Your task to perform on an android device: clear all cookies in the chrome app Image 0: 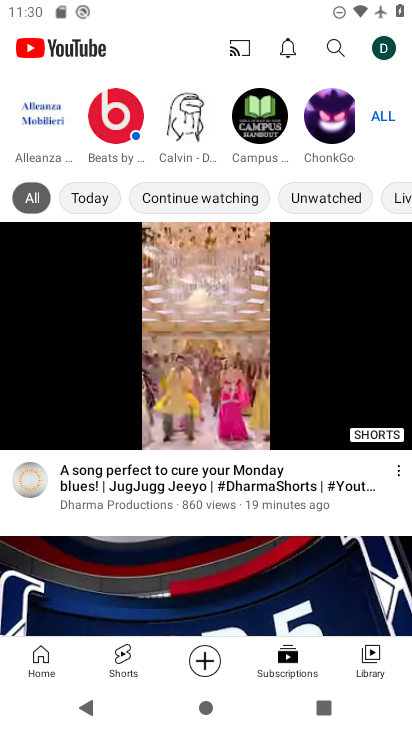
Step 0: press home button
Your task to perform on an android device: clear all cookies in the chrome app Image 1: 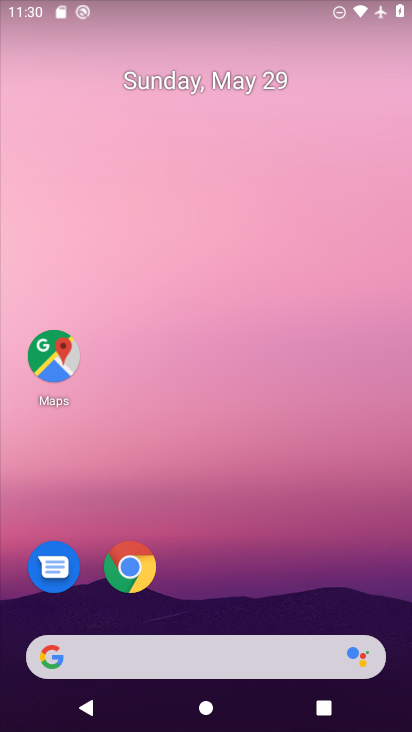
Step 1: click (129, 570)
Your task to perform on an android device: clear all cookies in the chrome app Image 2: 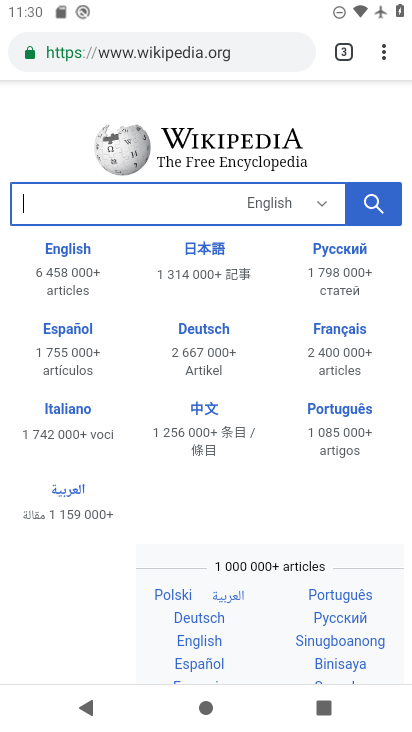
Step 2: click (379, 62)
Your task to perform on an android device: clear all cookies in the chrome app Image 3: 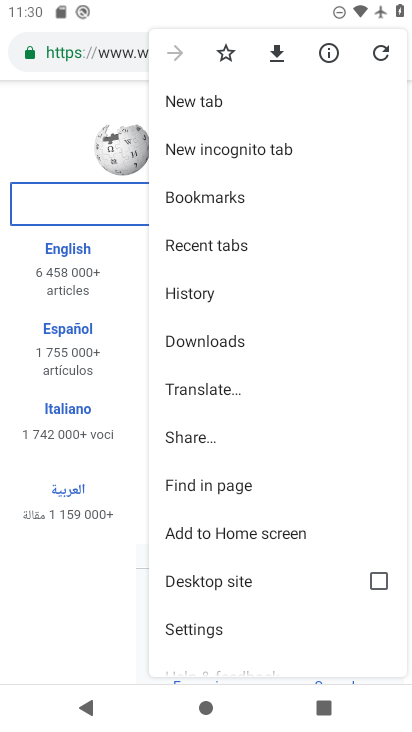
Step 3: click (201, 301)
Your task to perform on an android device: clear all cookies in the chrome app Image 4: 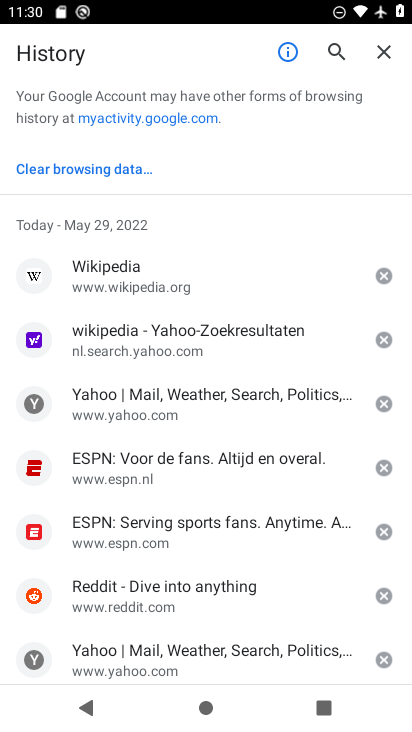
Step 4: click (59, 164)
Your task to perform on an android device: clear all cookies in the chrome app Image 5: 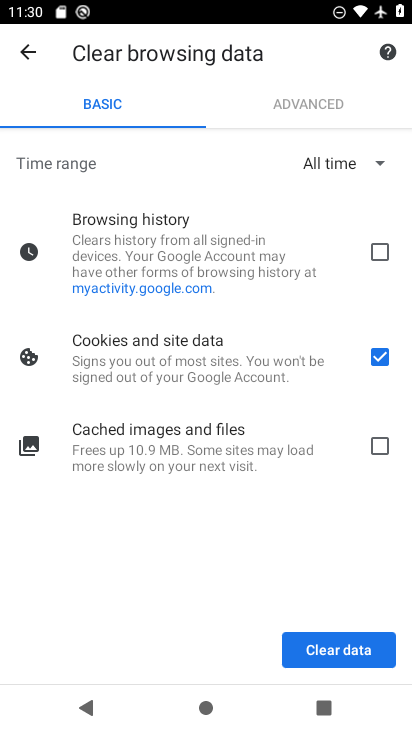
Step 5: click (334, 647)
Your task to perform on an android device: clear all cookies in the chrome app Image 6: 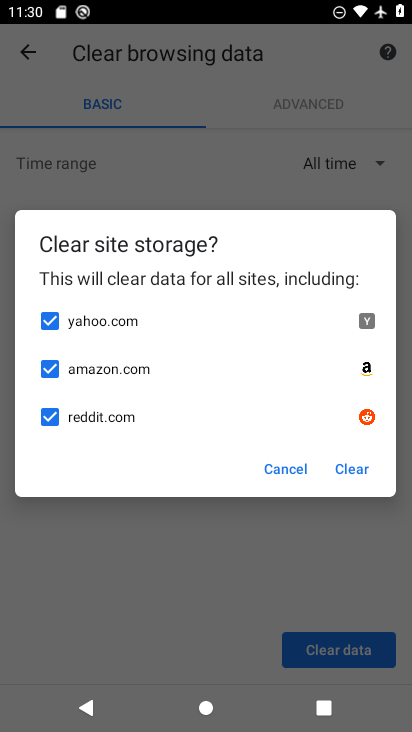
Step 6: click (357, 465)
Your task to perform on an android device: clear all cookies in the chrome app Image 7: 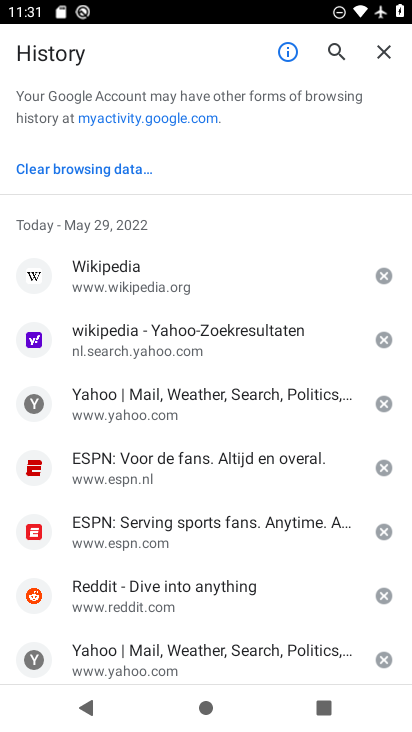
Step 7: task complete